Your task to perform on an android device: Show me popular videos on Youtube Image 0: 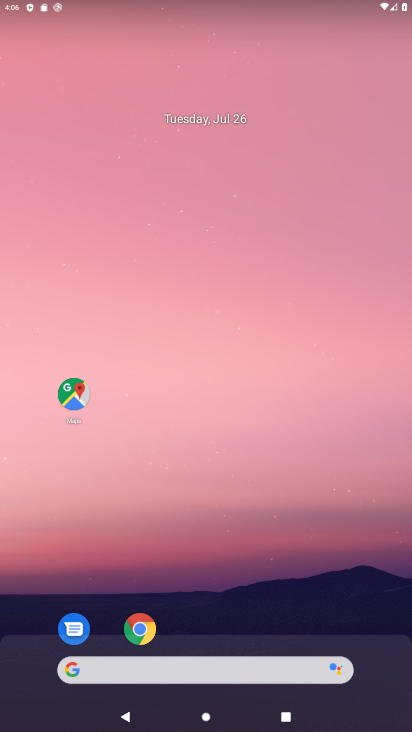
Step 0: drag from (276, 577) to (398, 128)
Your task to perform on an android device: Show me popular videos on Youtube Image 1: 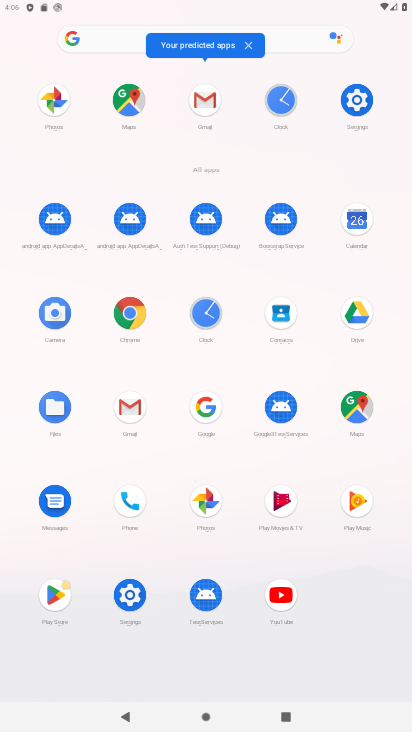
Step 1: click (281, 592)
Your task to perform on an android device: Show me popular videos on Youtube Image 2: 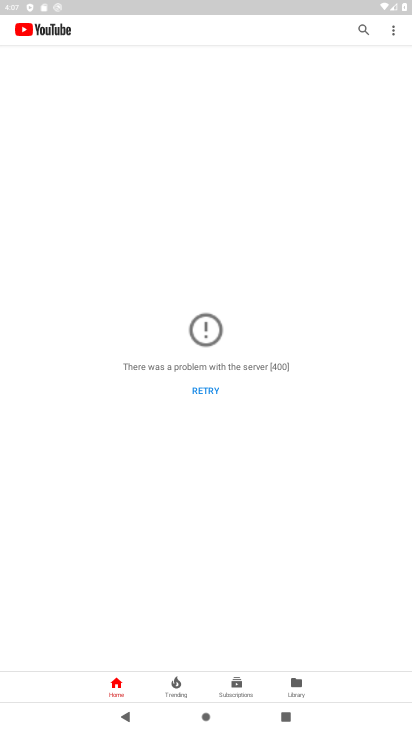
Step 2: click (211, 384)
Your task to perform on an android device: Show me popular videos on Youtube Image 3: 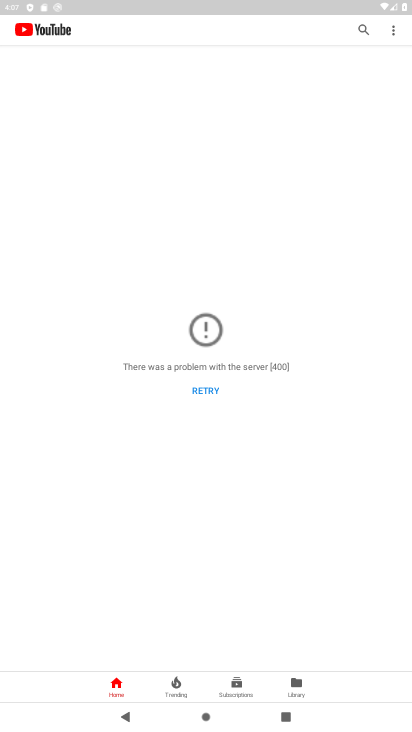
Step 3: task complete